Your task to perform on an android device: open the mobile data screen to see how much data has been used Image 0: 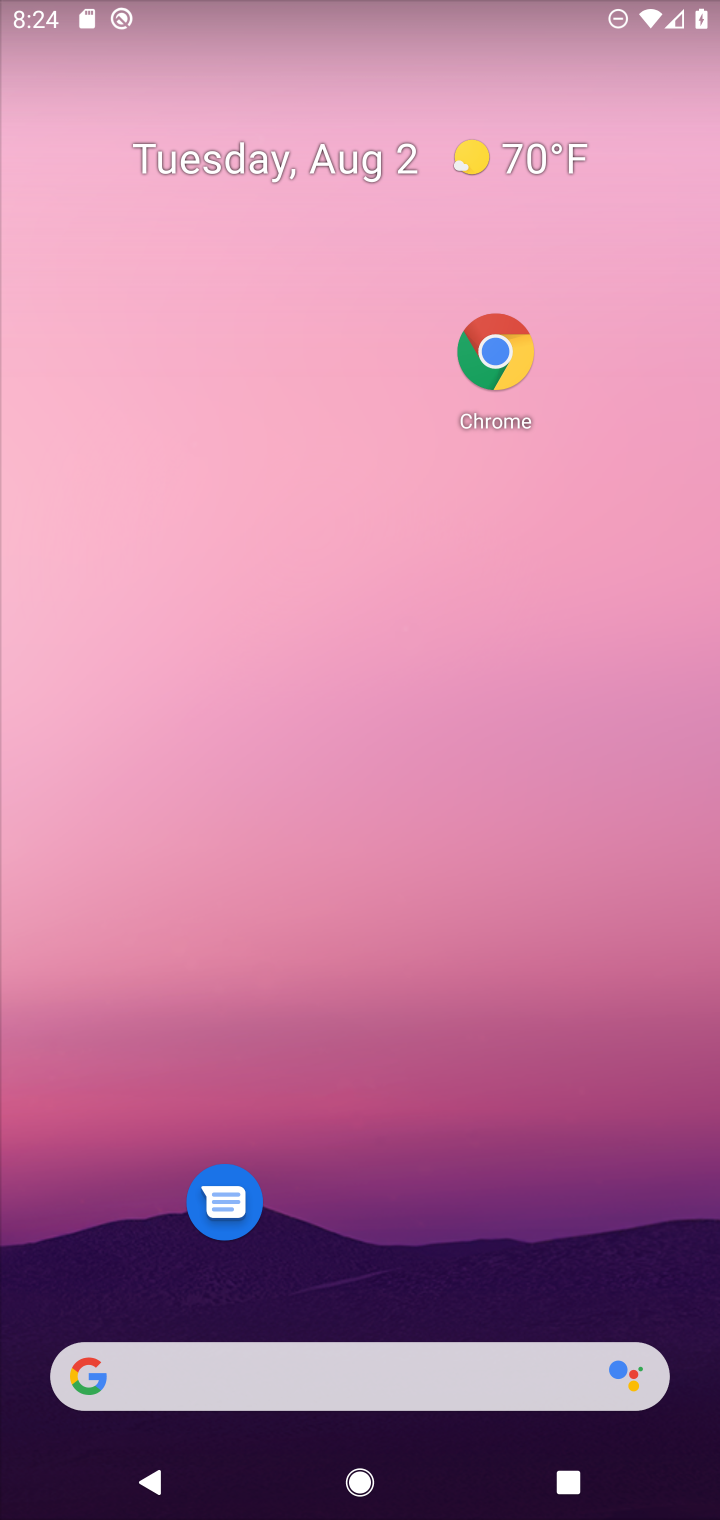
Step 0: drag from (387, 1285) to (375, 113)
Your task to perform on an android device: open the mobile data screen to see how much data has been used Image 1: 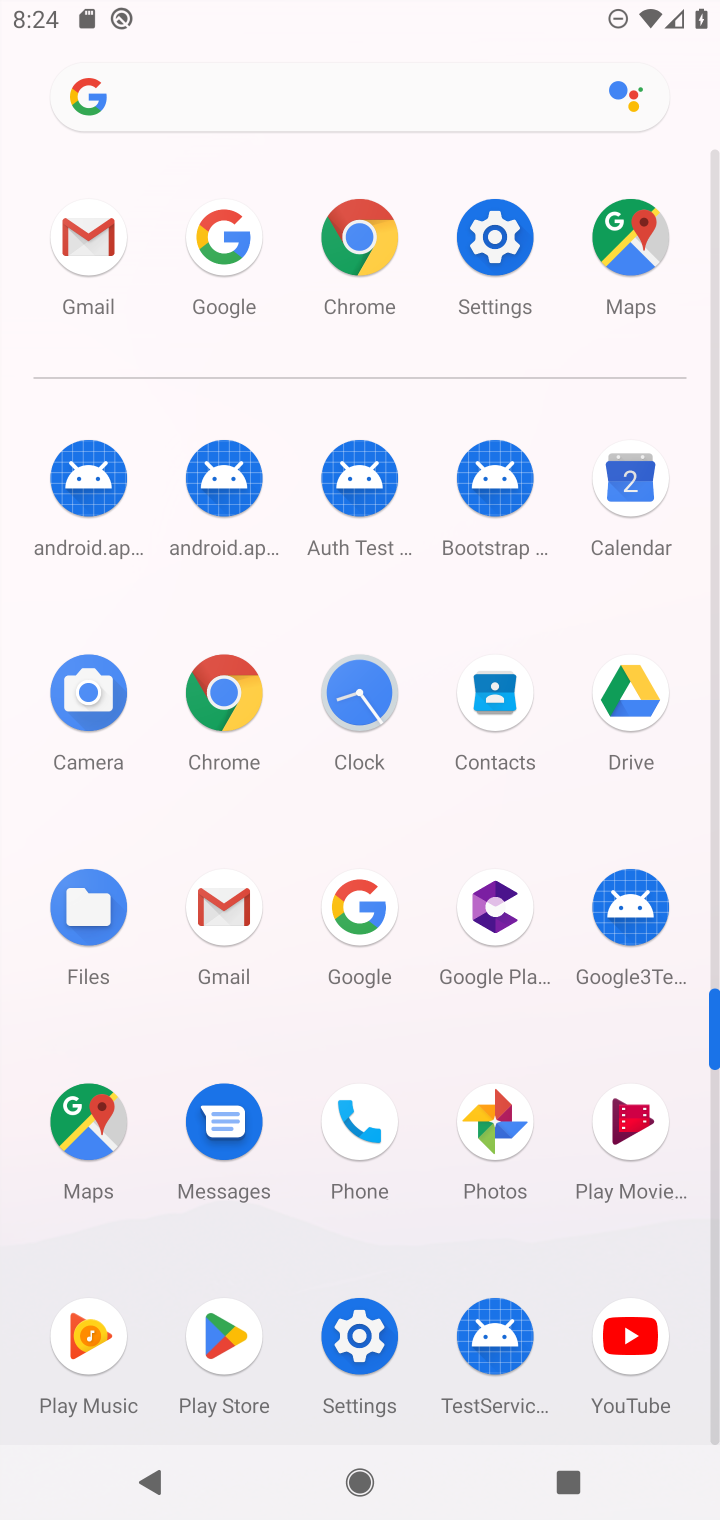
Step 1: click (493, 265)
Your task to perform on an android device: open the mobile data screen to see how much data has been used Image 2: 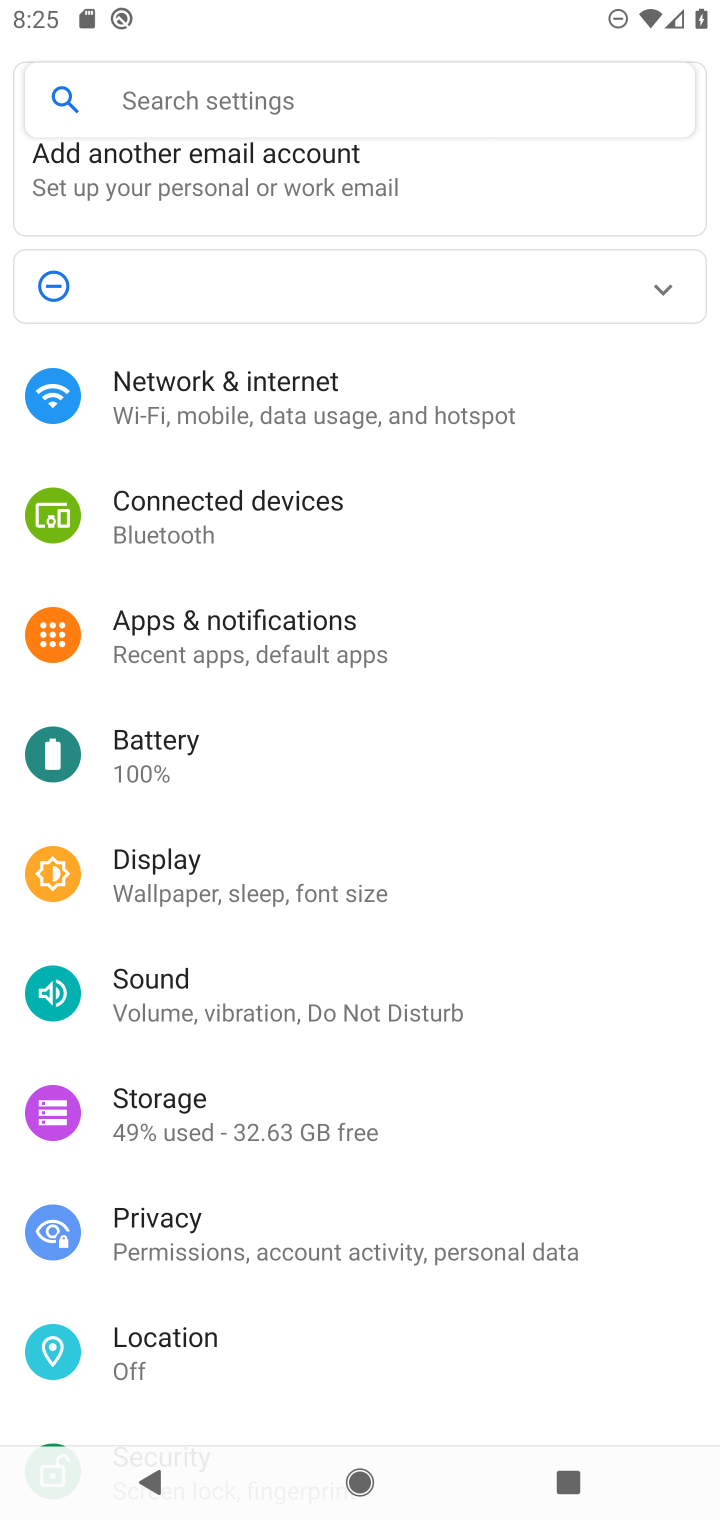
Step 2: click (215, 419)
Your task to perform on an android device: open the mobile data screen to see how much data has been used Image 3: 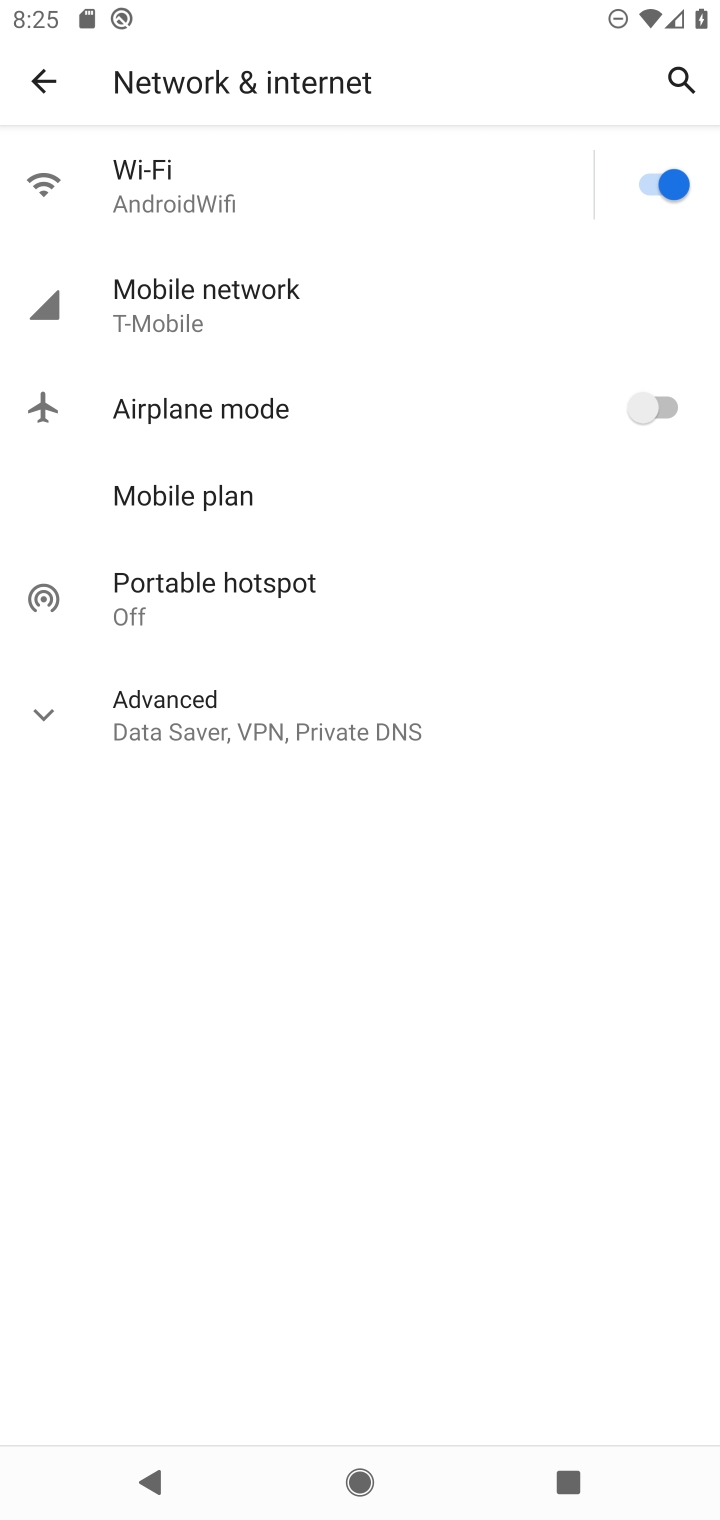
Step 3: click (169, 309)
Your task to perform on an android device: open the mobile data screen to see how much data has been used Image 4: 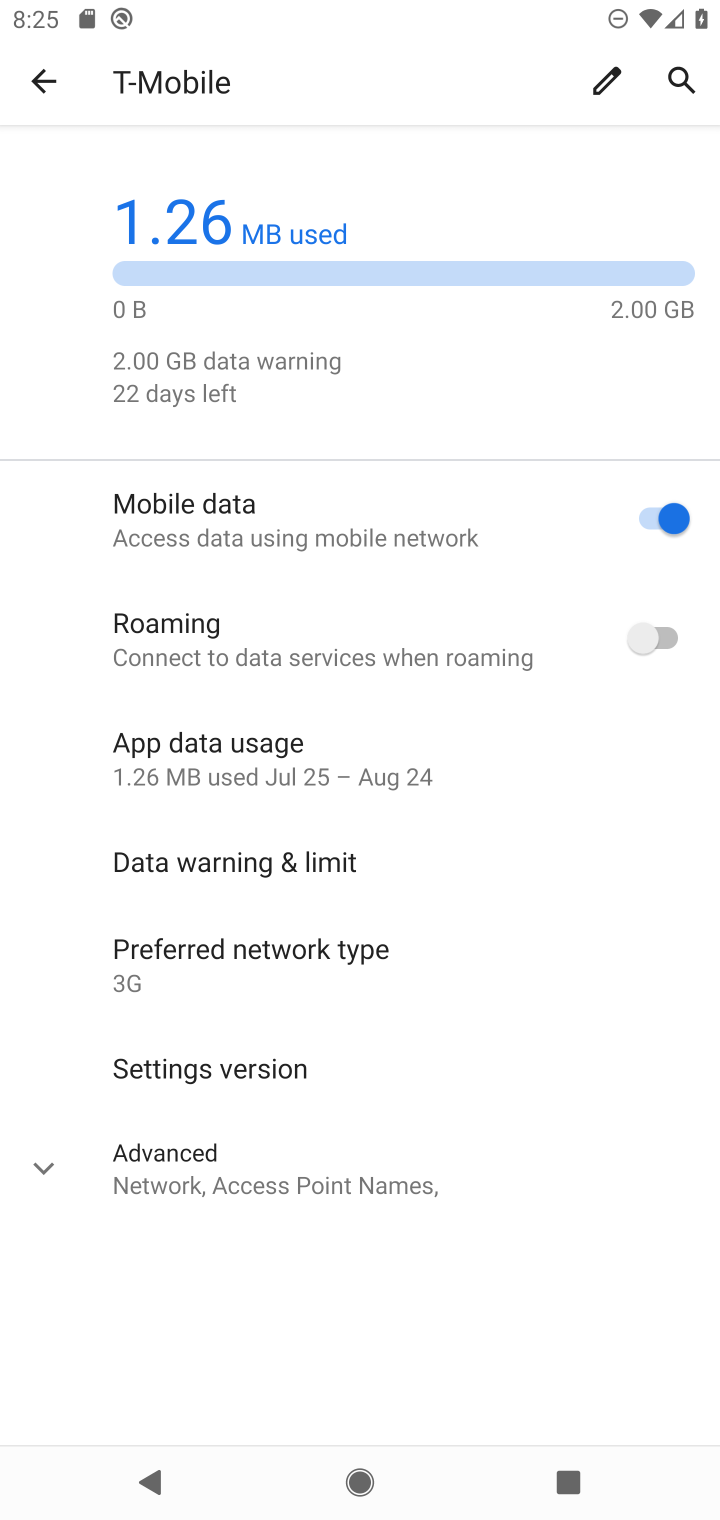
Step 4: click (175, 775)
Your task to perform on an android device: open the mobile data screen to see how much data has been used Image 5: 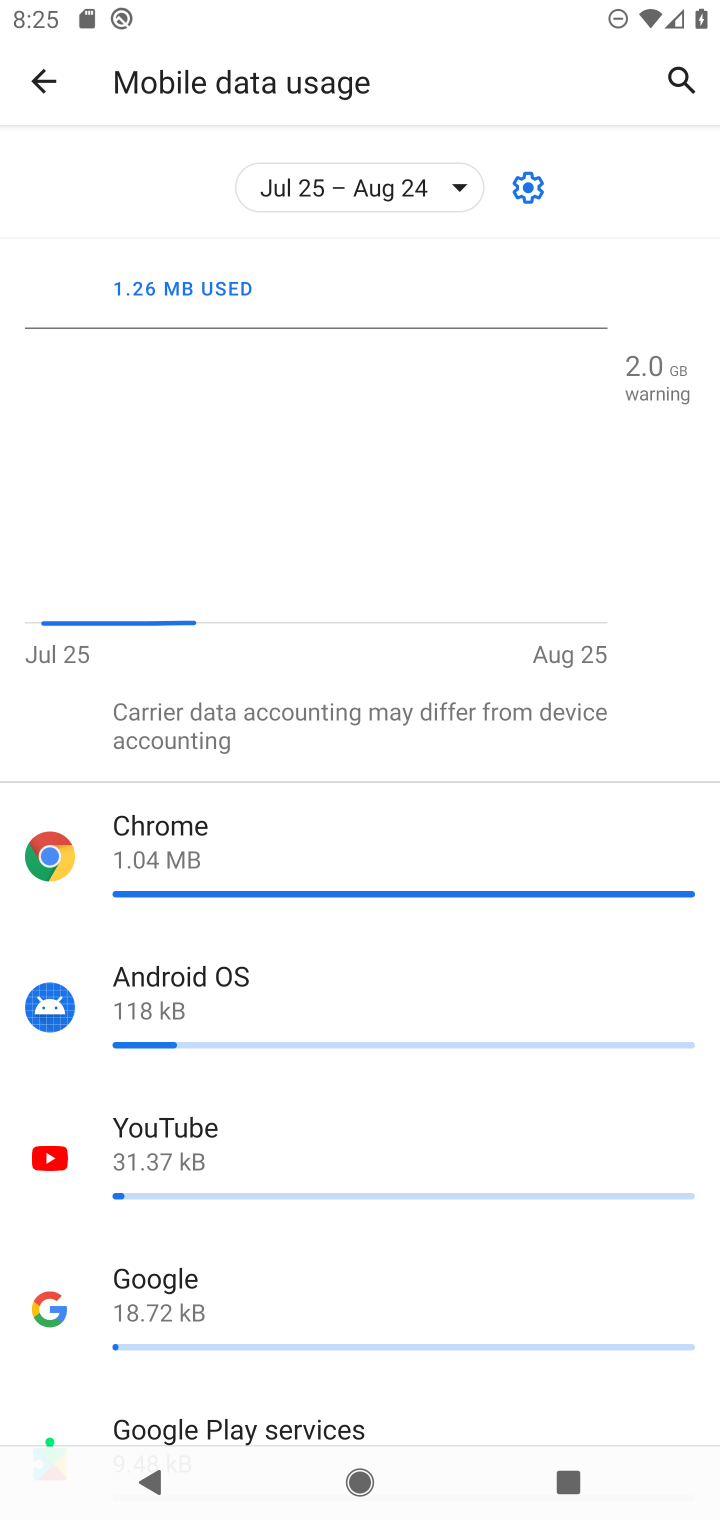
Step 5: task complete